Your task to perform on an android device: turn on data saver in the chrome app Image 0: 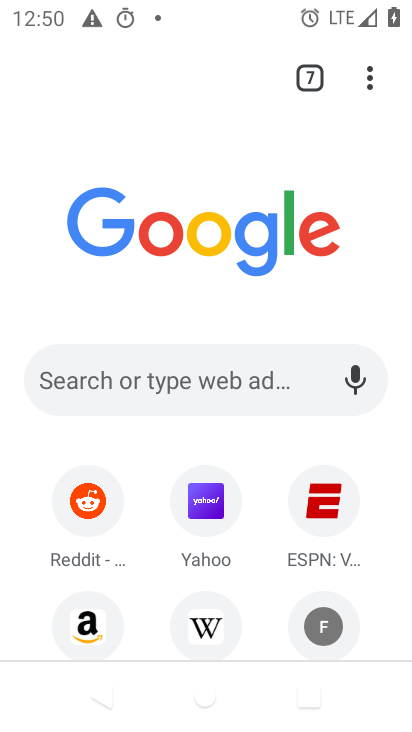
Step 0: drag from (379, 72) to (121, 537)
Your task to perform on an android device: turn on data saver in the chrome app Image 1: 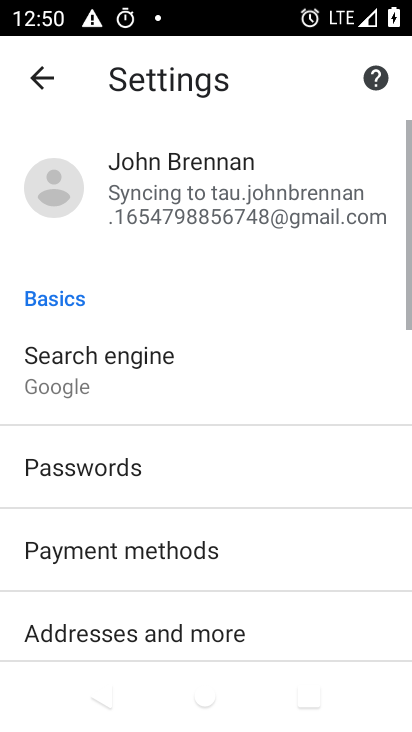
Step 1: drag from (139, 590) to (242, 145)
Your task to perform on an android device: turn on data saver in the chrome app Image 2: 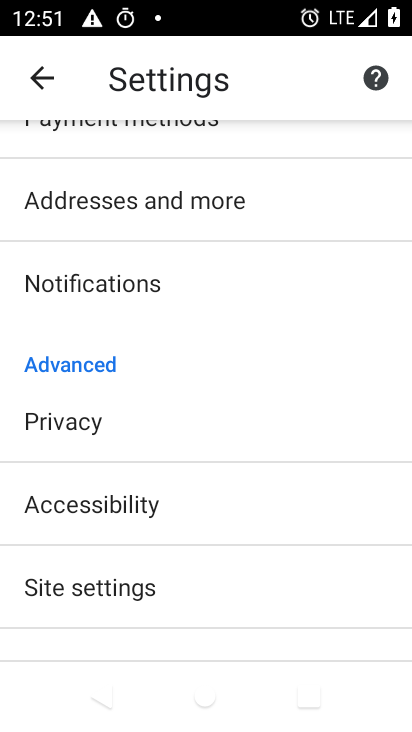
Step 2: drag from (146, 633) to (278, 157)
Your task to perform on an android device: turn on data saver in the chrome app Image 3: 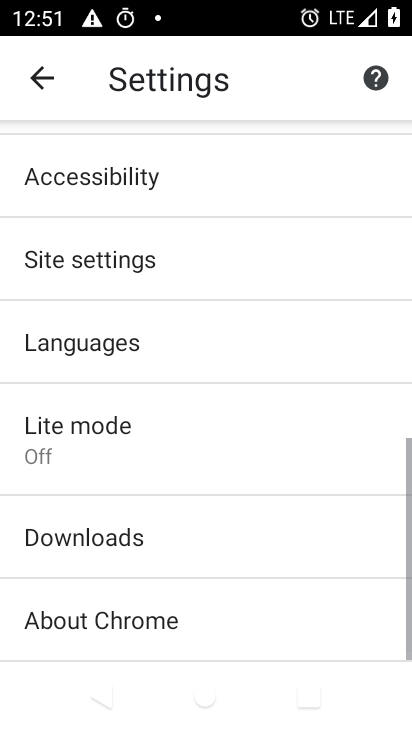
Step 3: click (96, 429)
Your task to perform on an android device: turn on data saver in the chrome app Image 4: 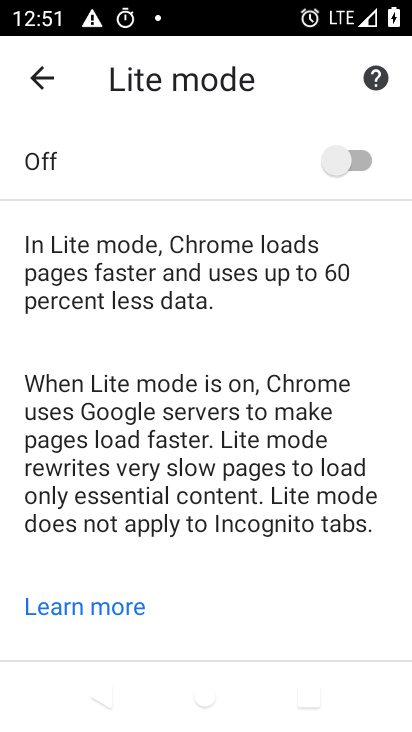
Step 4: click (347, 177)
Your task to perform on an android device: turn on data saver in the chrome app Image 5: 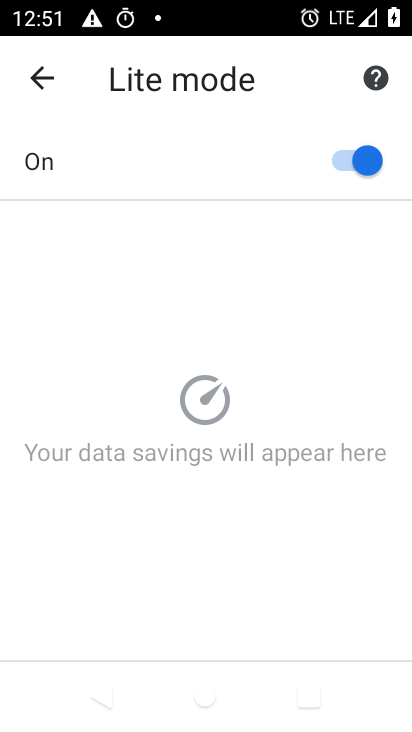
Step 5: task complete